Your task to perform on an android device: check storage Image 0: 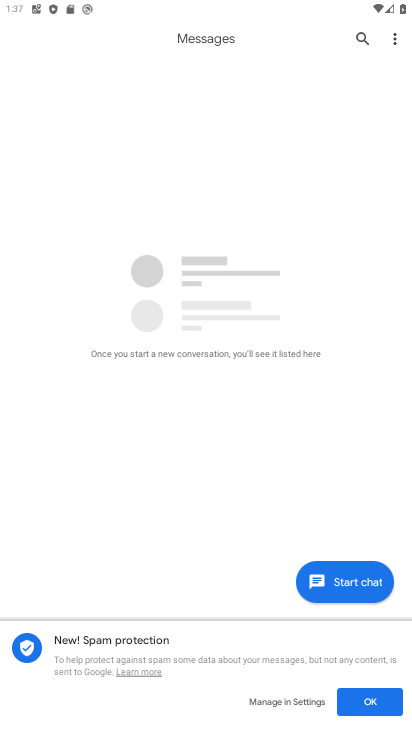
Step 0: press home button
Your task to perform on an android device: check storage Image 1: 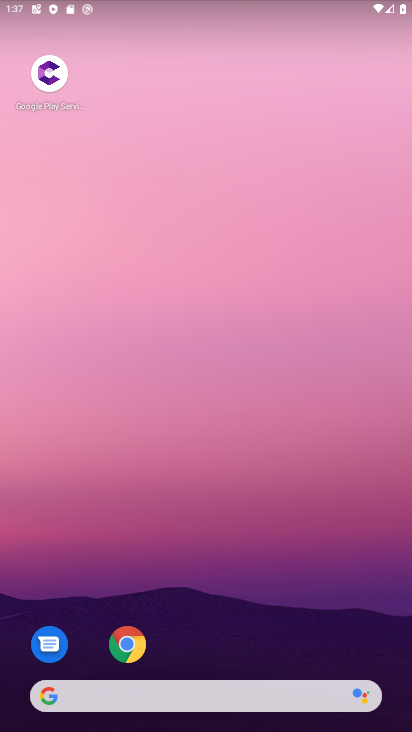
Step 1: drag from (267, 689) to (292, 2)
Your task to perform on an android device: check storage Image 2: 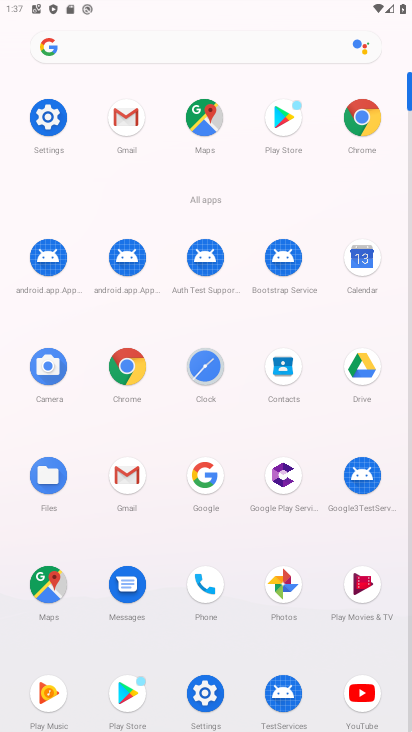
Step 2: click (53, 127)
Your task to perform on an android device: check storage Image 3: 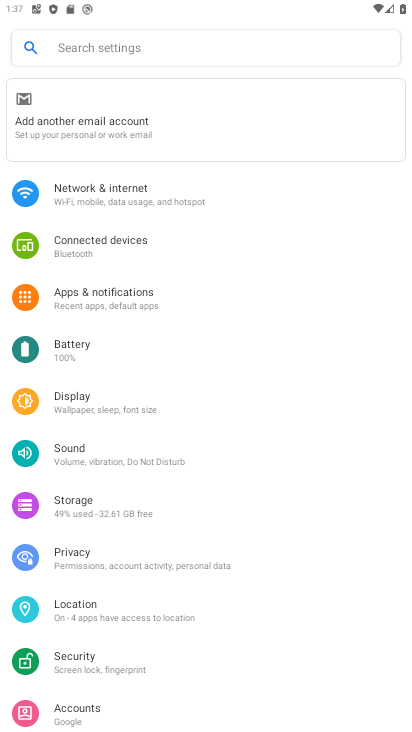
Step 3: drag from (238, 693) to (249, 482)
Your task to perform on an android device: check storage Image 4: 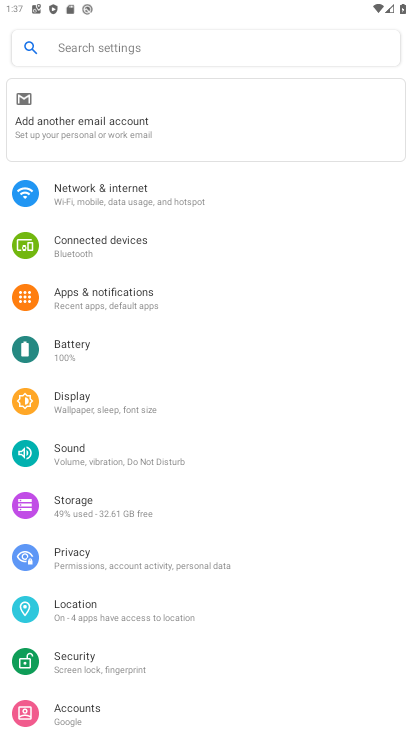
Step 4: click (131, 504)
Your task to perform on an android device: check storage Image 5: 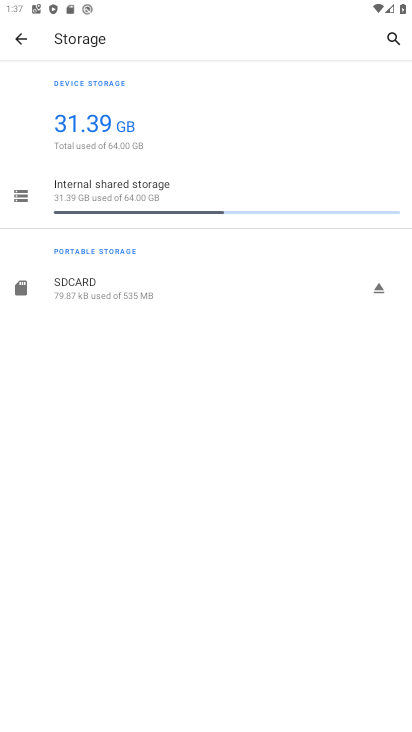
Step 5: task complete